Your task to perform on an android device: Go to accessibility settings Image 0: 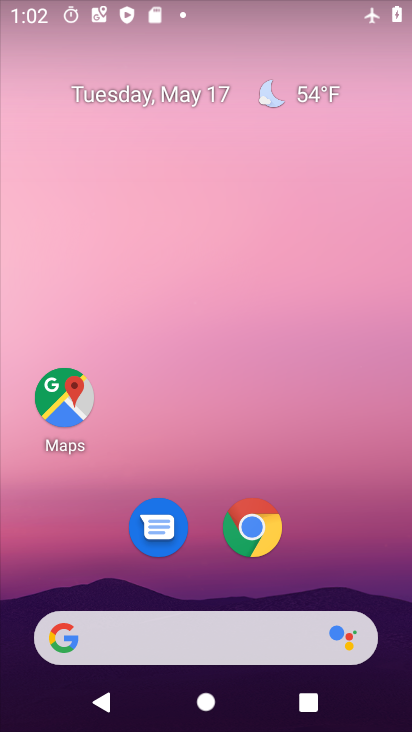
Step 0: drag from (218, 683) to (201, 105)
Your task to perform on an android device: Go to accessibility settings Image 1: 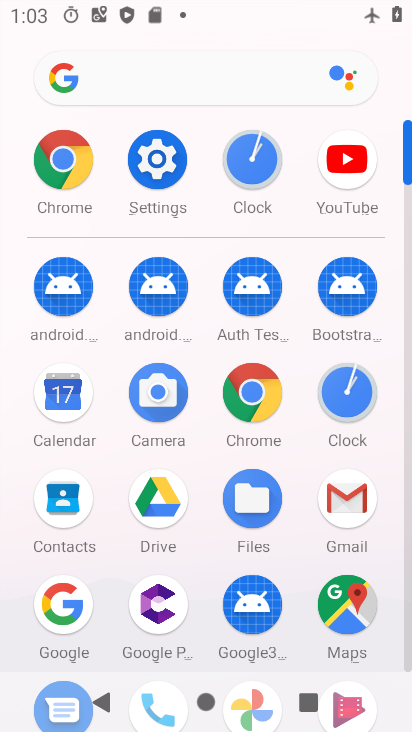
Step 1: click (149, 184)
Your task to perform on an android device: Go to accessibility settings Image 2: 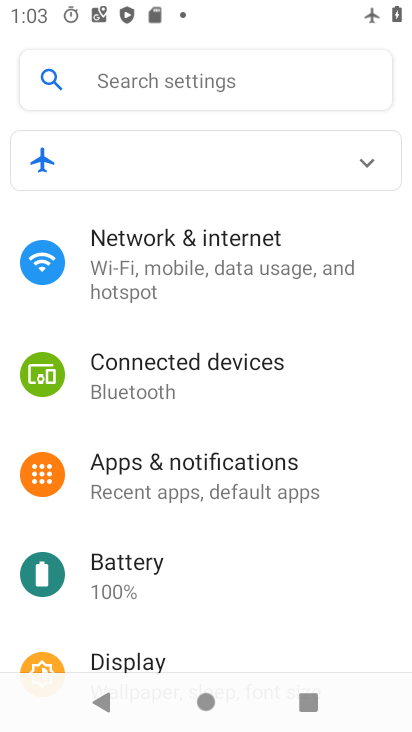
Step 2: click (164, 92)
Your task to perform on an android device: Go to accessibility settings Image 3: 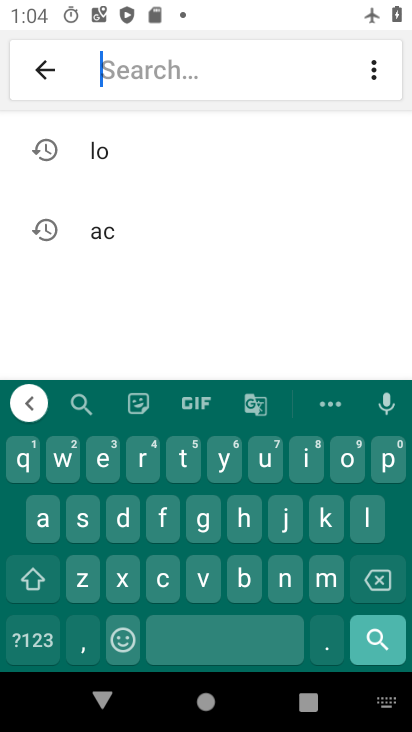
Step 3: click (114, 230)
Your task to perform on an android device: Go to accessibility settings Image 4: 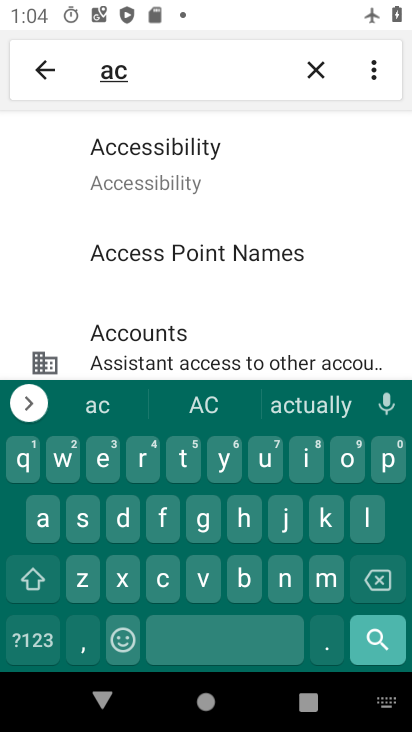
Step 4: click (160, 181)
Your task to perform on an android device: Go to accessibility settings Image 5: 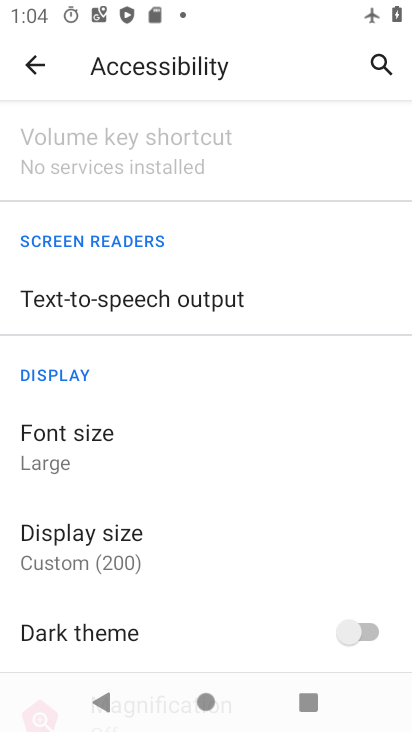
Step 5: task complete